Your task to perform on an android device: Open Youtube and go to "Your channel" Image 0: 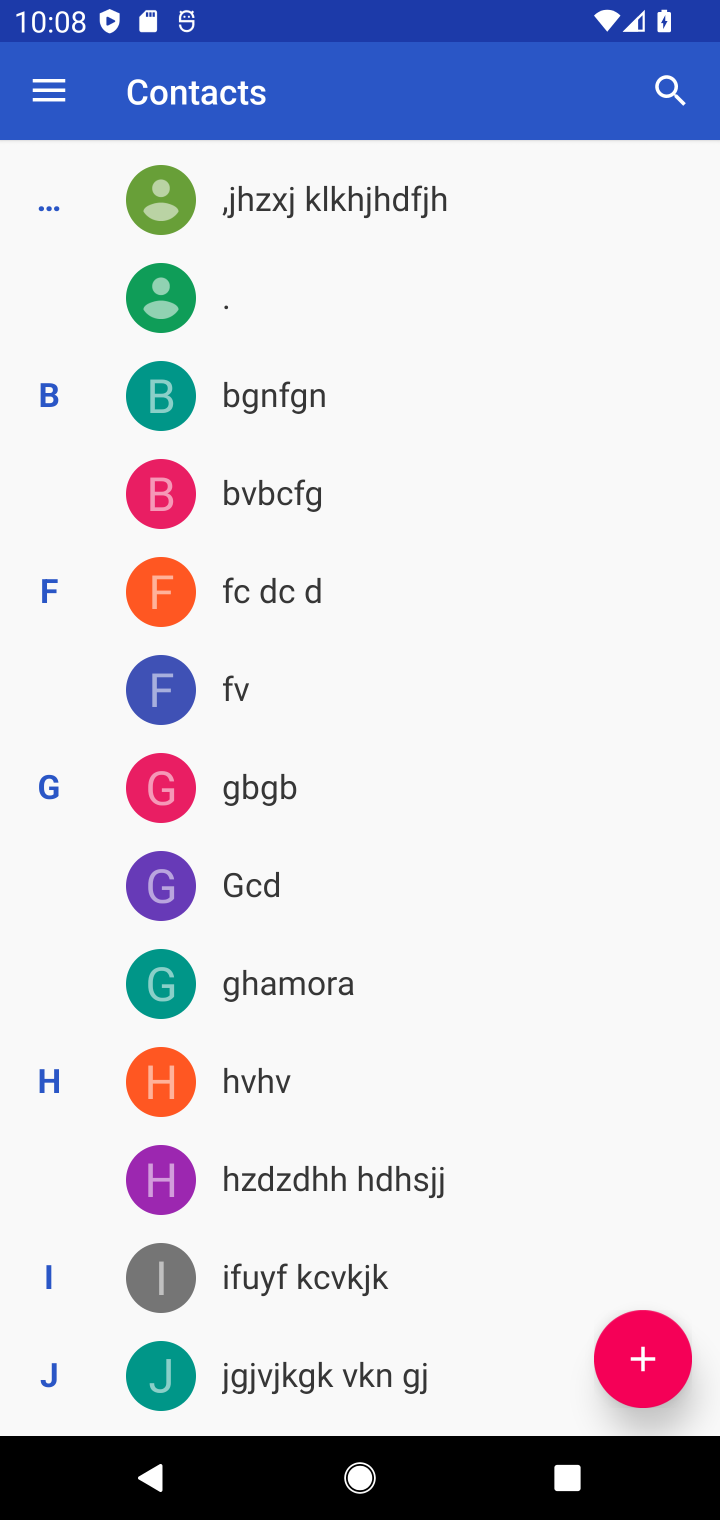
Step 0: press home button
Your task to perform on an android device: Open Youtube and go to "Your channel" Image 1: 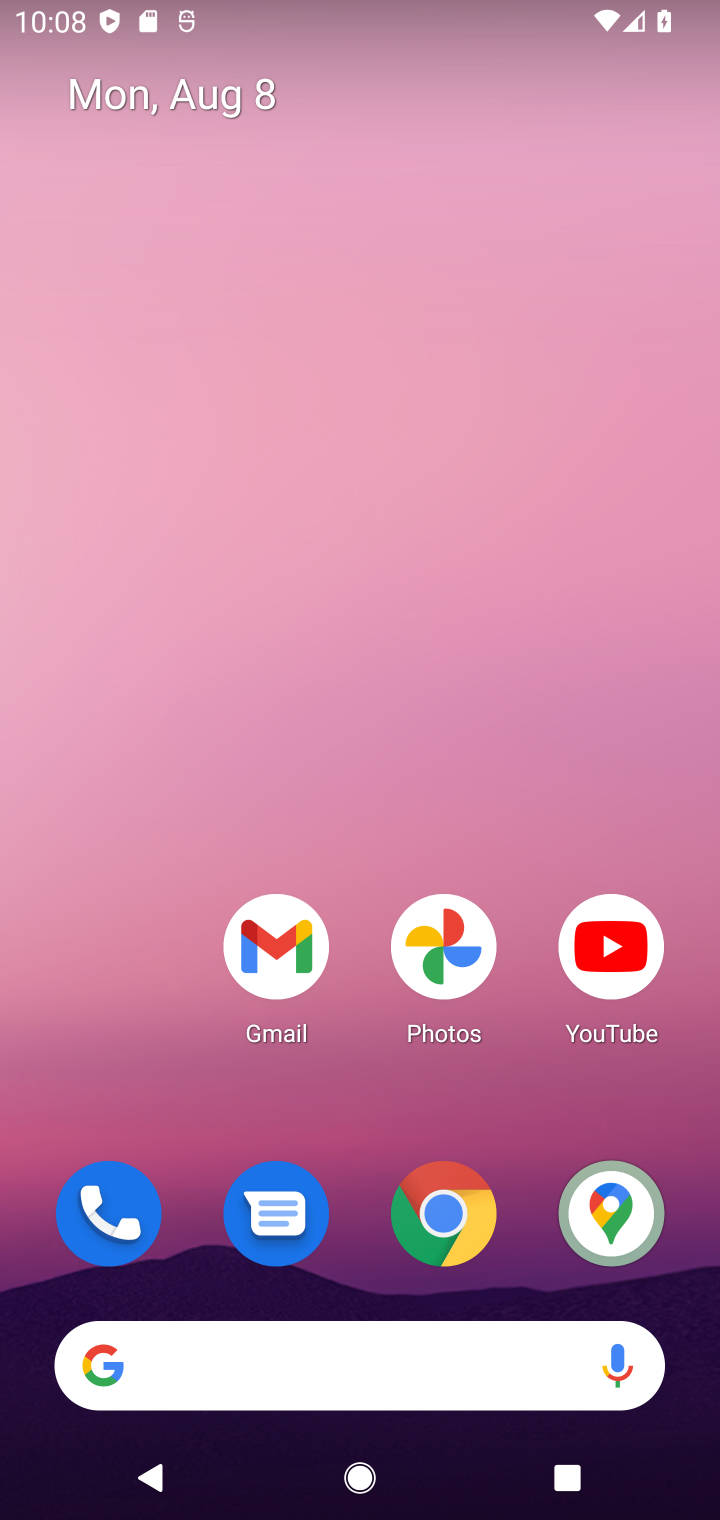
Step 1: click (583, 926)
Your task to perform on an android device: Open Youtube and go to "Your channel" Image 2: 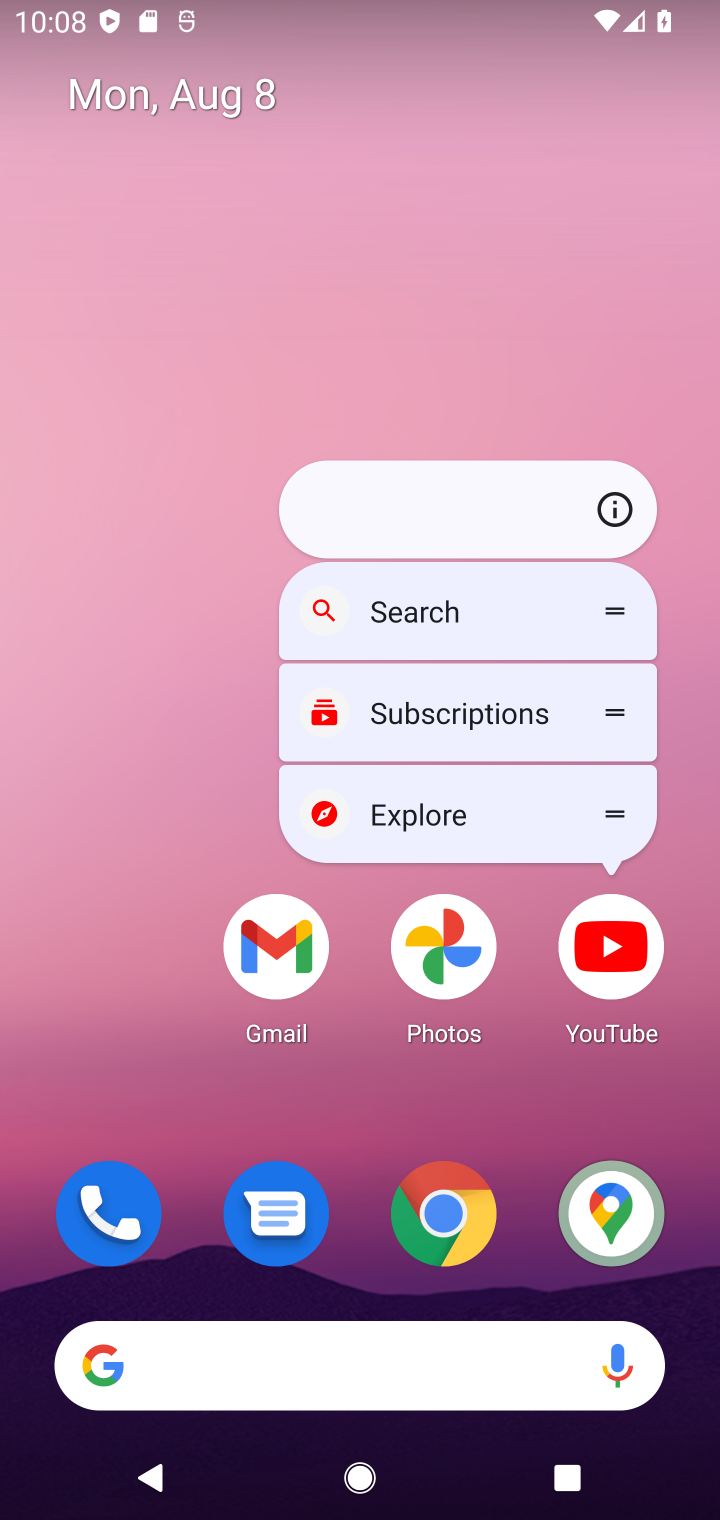
Step 2: click (593, 940)
Your task to perform on an android device: Open Youtube and go to "Your channel" Image 3: 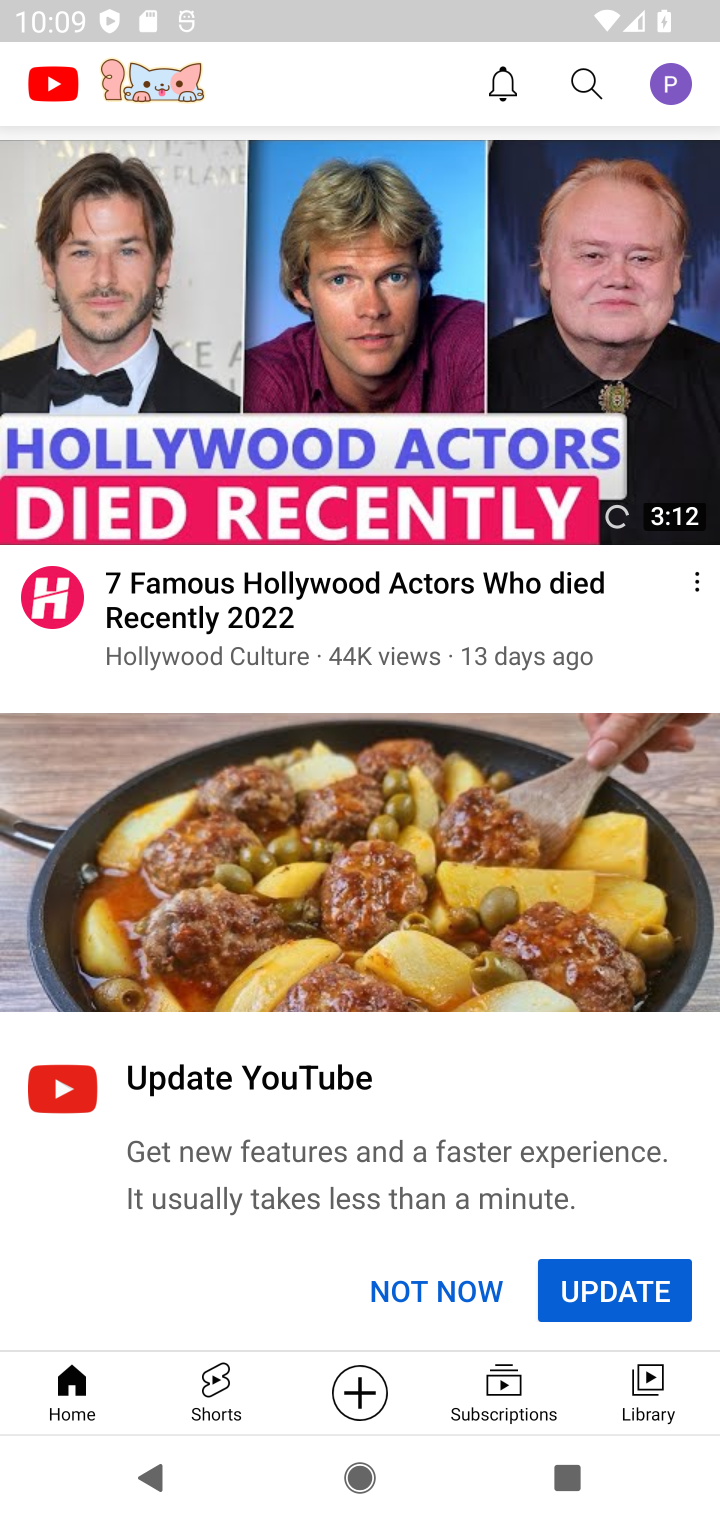
Step 3: click (671, 76)
Your task to perform on an android device: Open Youtube and go to "Your channel" Image 4: 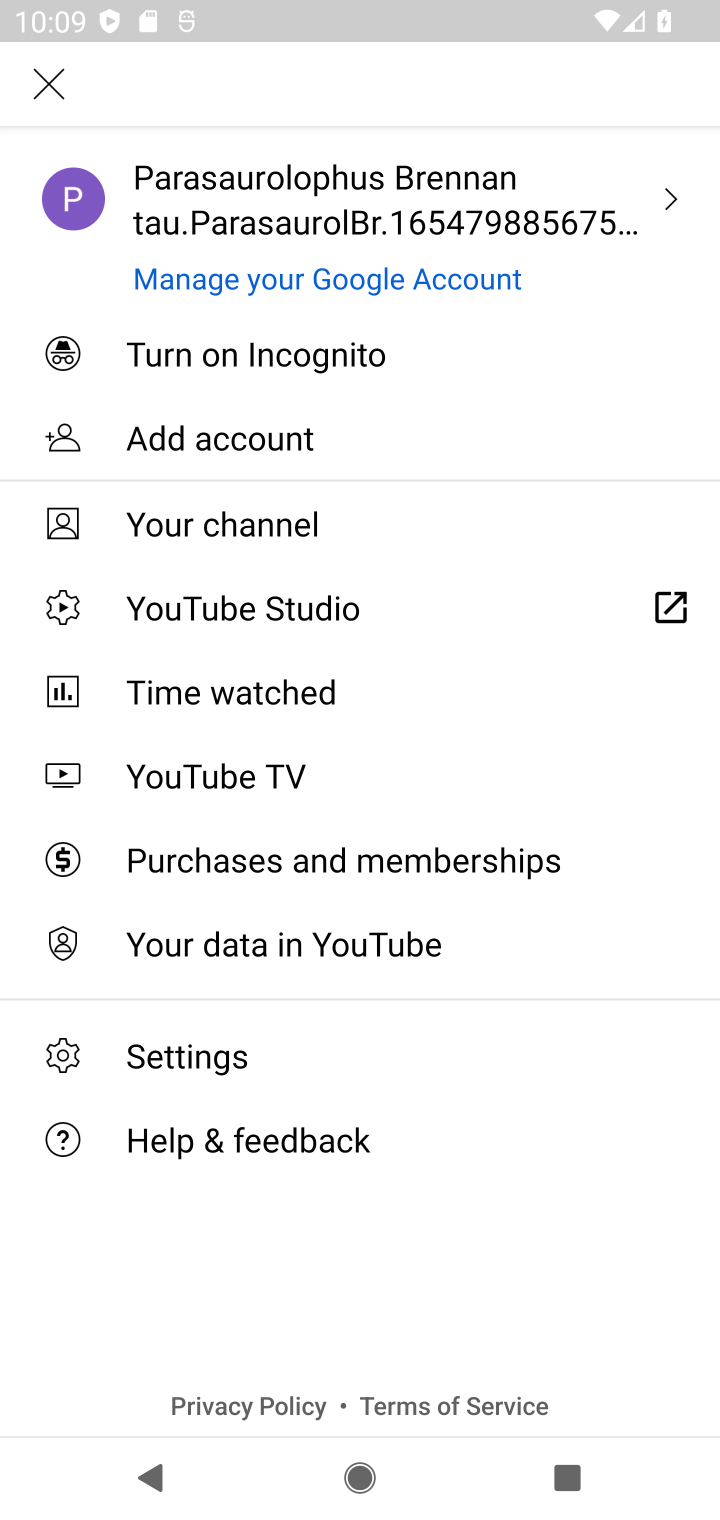
Step 4: click (267, 520)
Your task to perform on an android device: Open Youtube and go to "Your channel" Image 5: 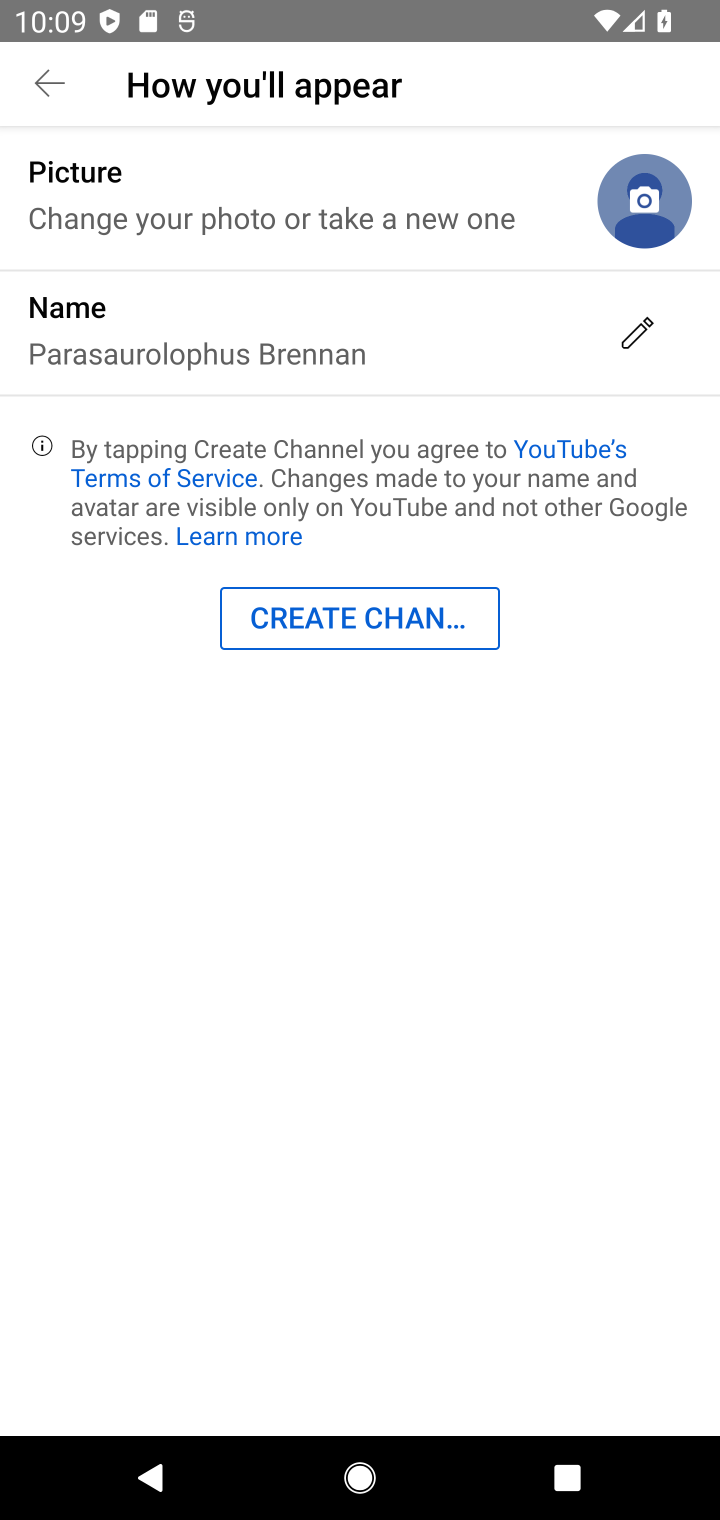
Step 5: task complete